Your task to perform on an android device: Go to Maps Image 0: 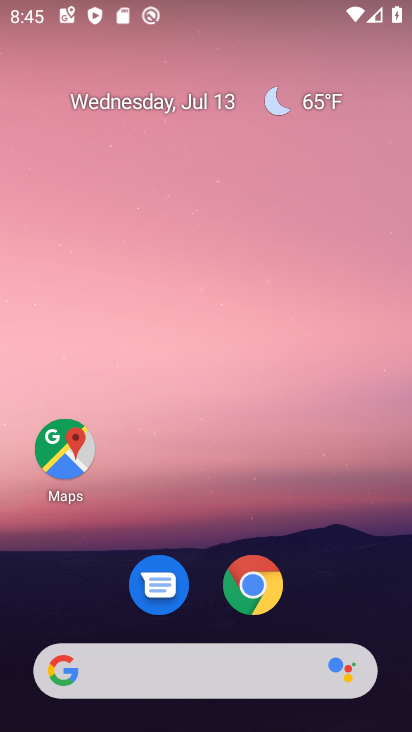
Step 0: click (68, 443)
Your task to perform on an android device: Go to Maps Image 1: 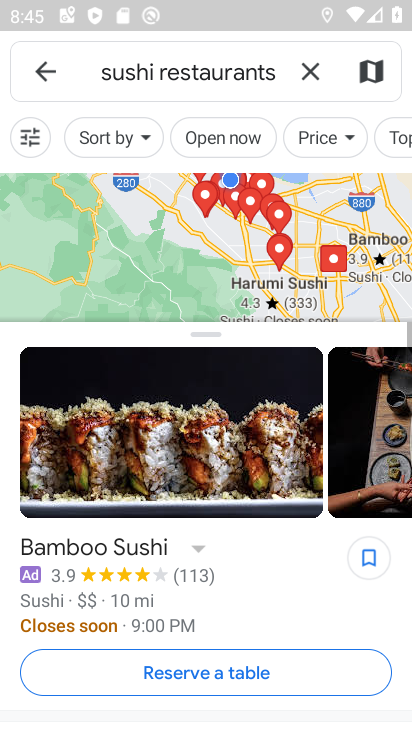
Step 1: click (309, 66)
Your task to perform on an android device: Go to Maps Image 2: 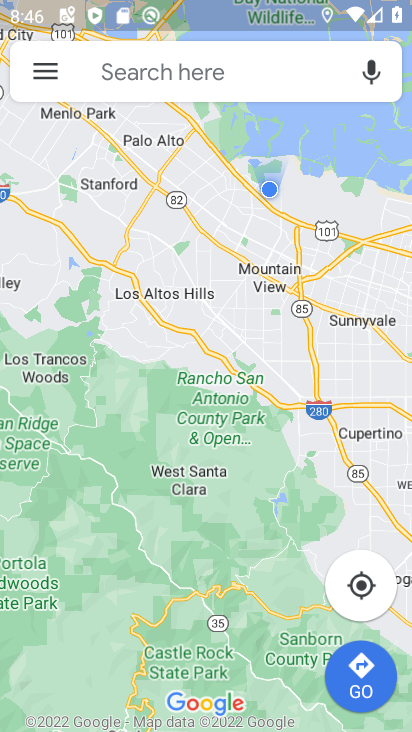
Step 2: task complete